Your task to perform on an android device: What's on my calendar today? Image 0: 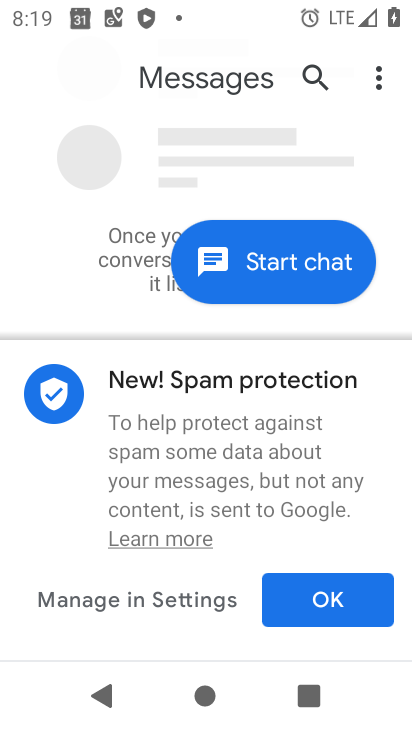
Step 0: press home button
Your task to perform on an android device: What's on my calendar today? Image 1: 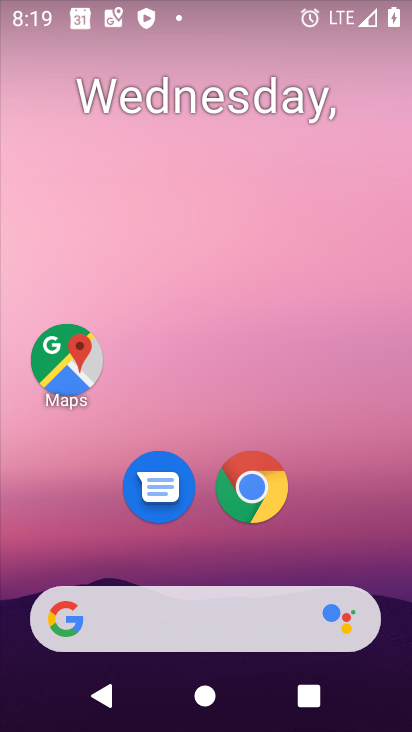
Step 1: drag from (377, 551) to (310, 7)
Your task to perform on an android device: What's on my calendar today? Image 2: 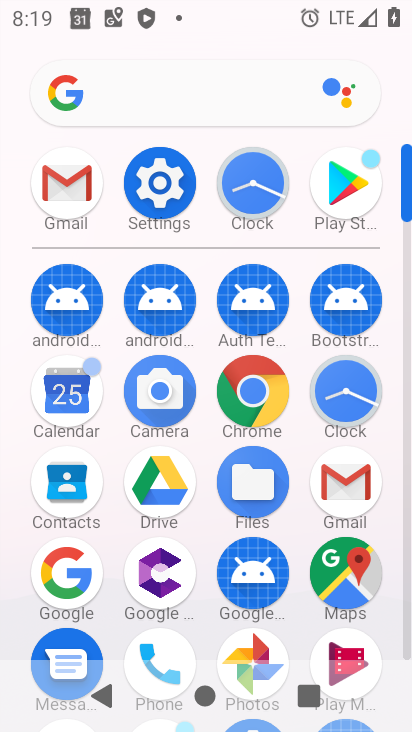
Step 2: click (60, 387)
Your task to perform on an android device: What's on my calendar today? Image 3: 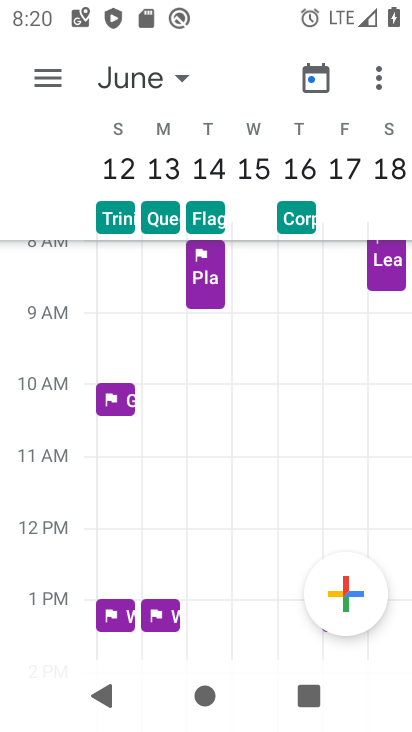
Step 3: click (313, 85)
Your task to perform on an android device: What's on my calendar today? Image 4: 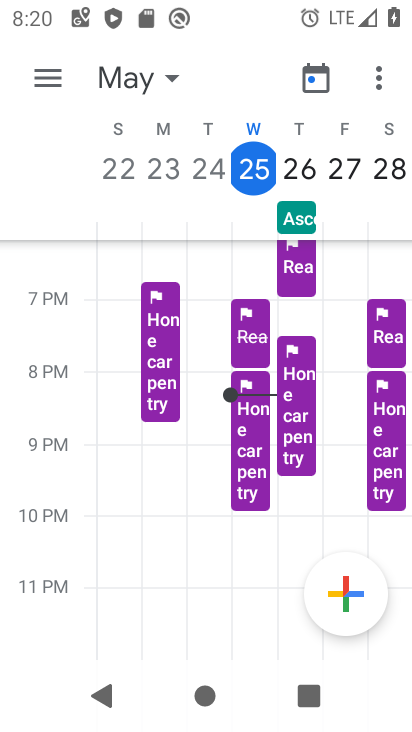
Step 4: click (39, 78)
Your task to perform on an android device: What's on my calendar today? Image 5: 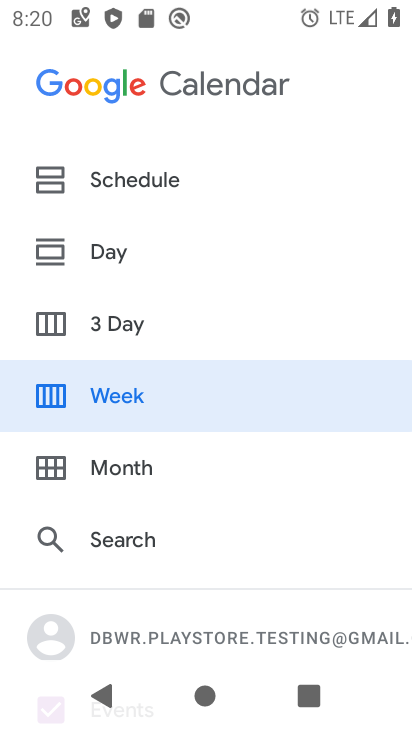
Step 5: click (98, 245)
Your task to perform on an android device: What's on my calendar today? Image 6: 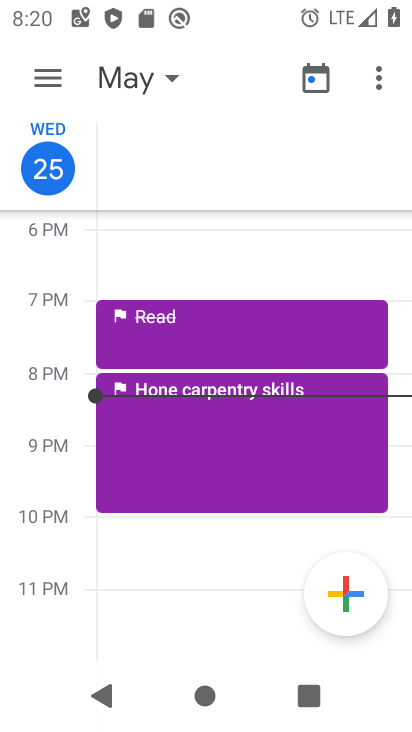
Step 6: task complete